Your task to perform on an android device: Find coffee shops on Maps Image 0: 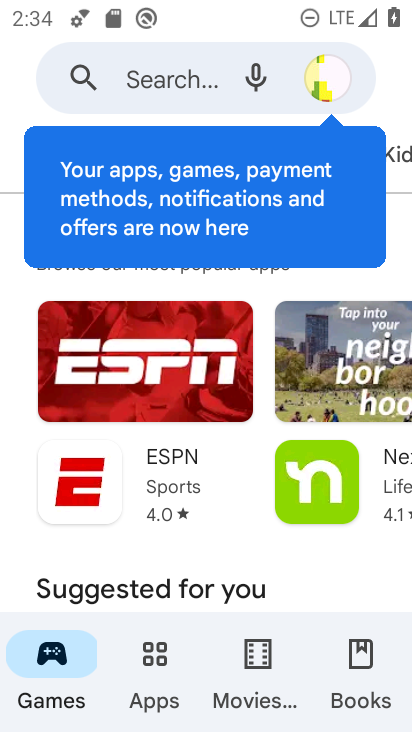
Step 0: press home button
Your task to perform on an android device: Find coffee shops on Maps Image 1: 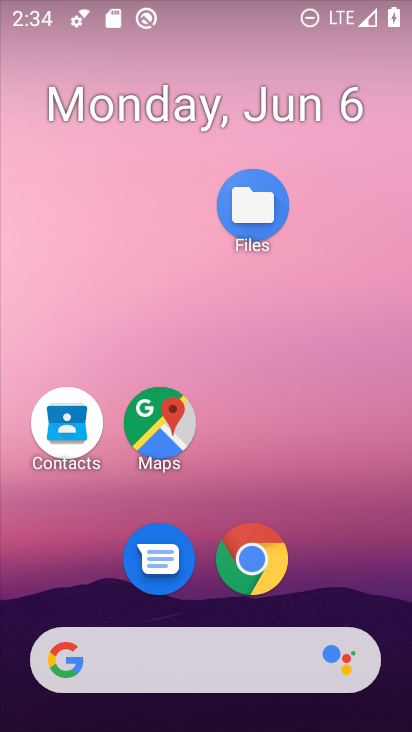
Step 1: click (173, 432)
Your task to perform on an android device: Find coffee shops on Maps Image 2: 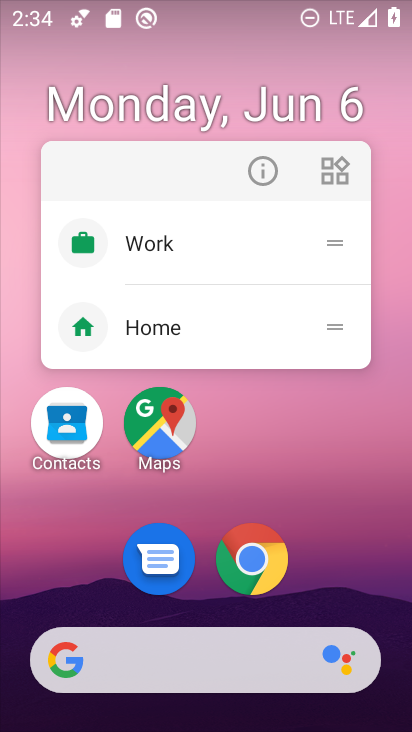
Step 2: click (175, 441)
Your task to perform on an android device: Find coffee shops on Maps Image 3: 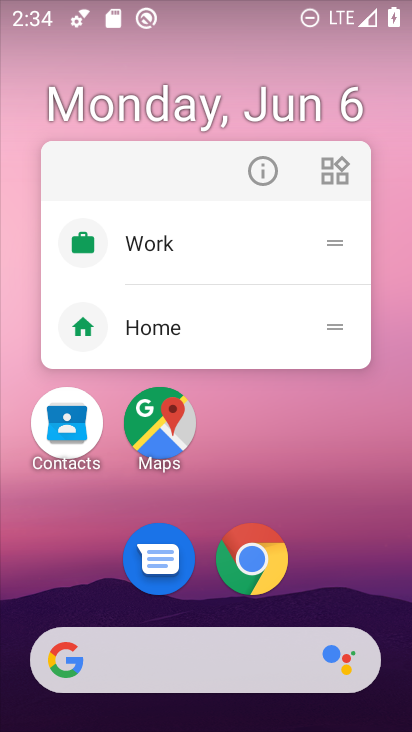
Step 3: click (175, 441)
Your task to perform on an android device: Find coffee shops on Maps Image 4: 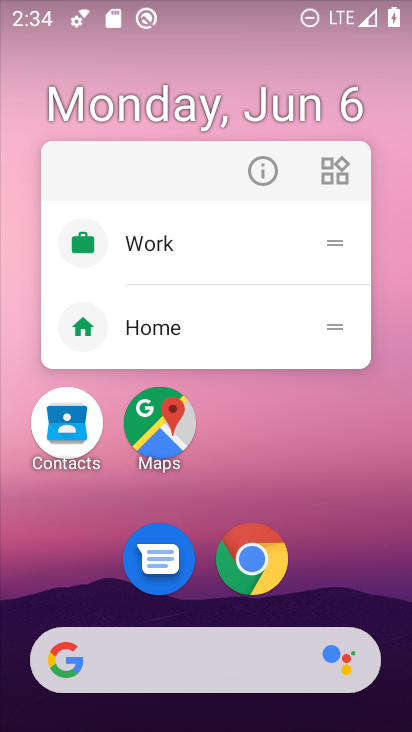
Step 4: click (175, 441)
Your task to perform on an android device: Find coffee shops on Maps Image 5: 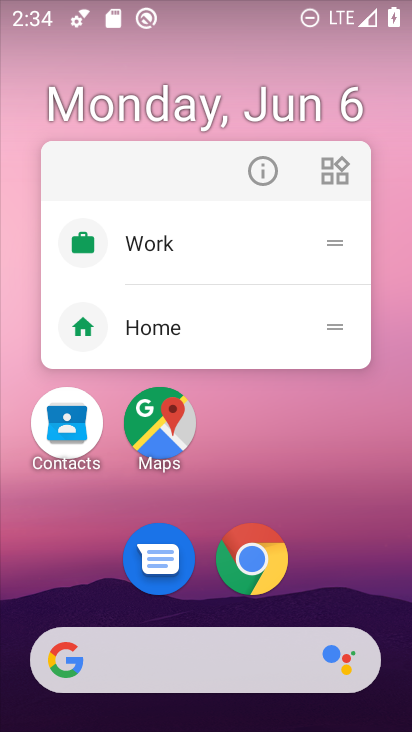
Step 5: click (141, 422)
Your task to perform on an android device: Find coffee shops on Maps Image 6: 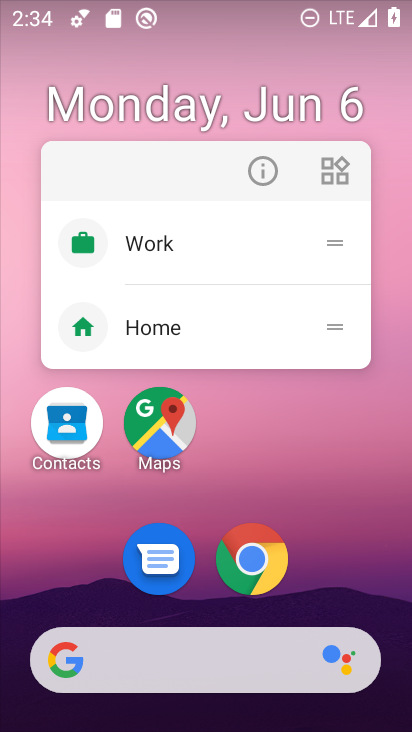
Step 6: click (153, 460)
Your task to perform on an android device: Find coffee shops on Maps Image 7: 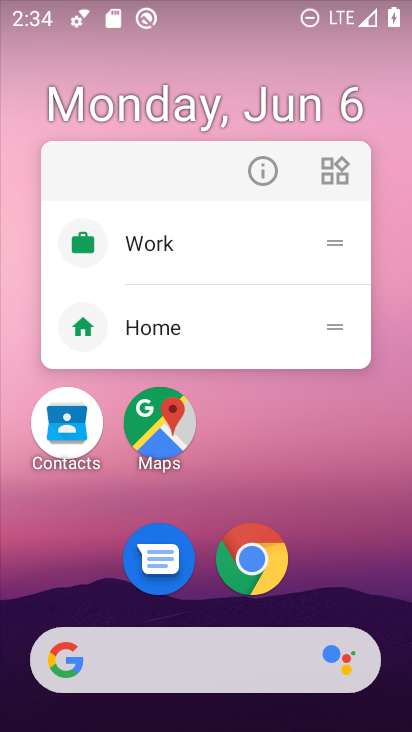
Step 7: click (156, 470)
Your task to perform on an android device: Find coffee shops on Maps Image 8: 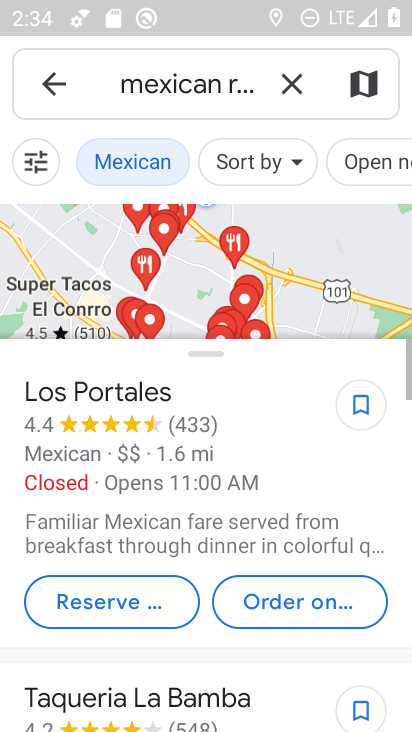
Step 8: click (282, 88)
Your task to perform on an android device: Find coffee shops on Maps Image 9: 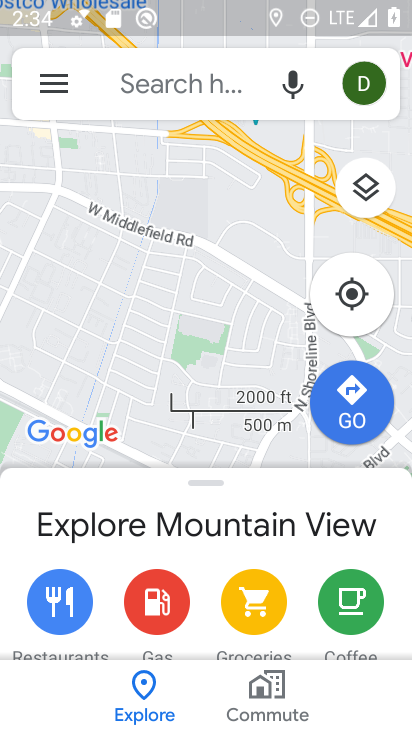
Step 9: click (180, 83)
Your task to perform on an android device: Find coffee shops on Maps Image 10: 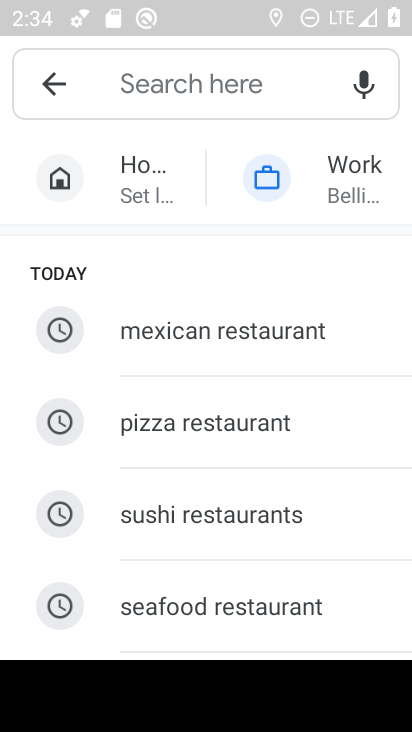
Step 10: type "coffee shops"
Your task to perform on an android device: Find coffee shops on Maps Image 11: 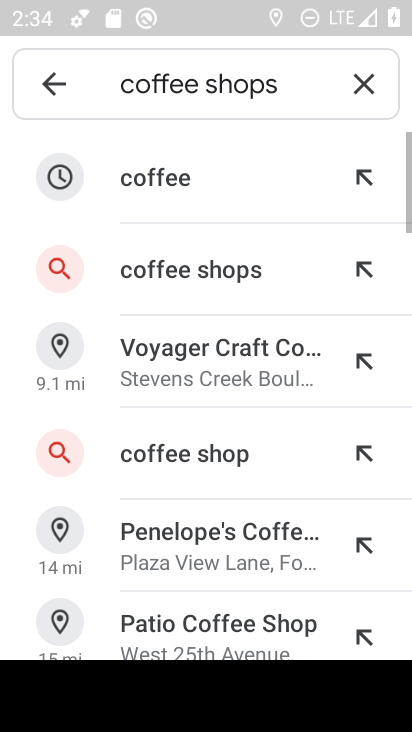
Step 11: click (264, 278)
Your task to perform on an android device: Find coffee shops on Maps Image 12: 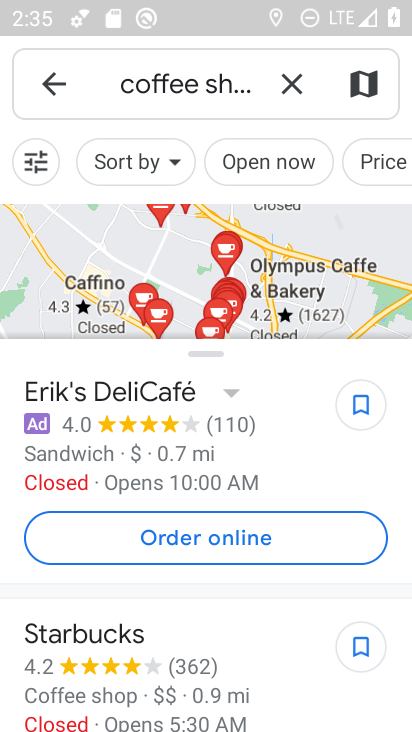
Step 12: task complete